Your task to perform on an android device: toggle show notifications on the lock screen Image 0: 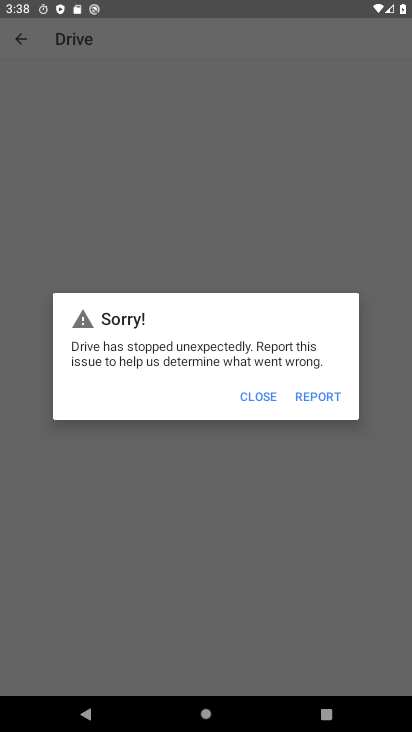
Step 0: press home button
Your task to perform on an android device: toggle show notifications on the lock screen Image 1: 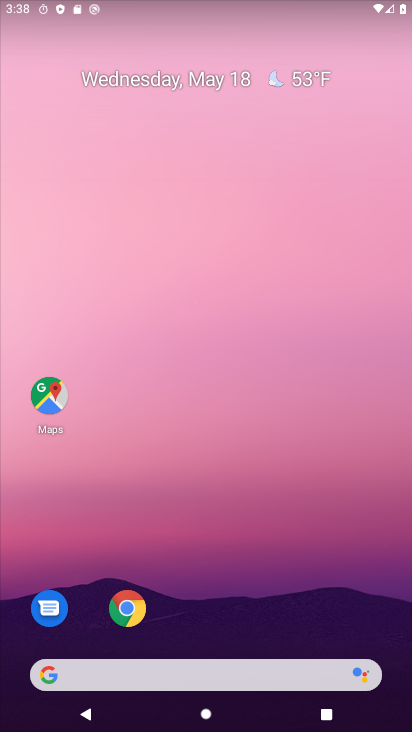
Step 1: drag from (225, 683) to (279, 78)
Your task to perform on an android device: toggle show notifications on the lock screen Image 2: 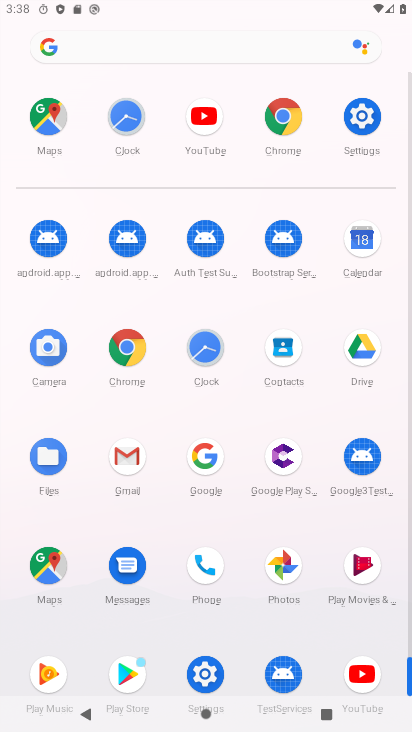
Step 2: click (356, 131)
Your task to perform on an android device: toggle show notifications on the lock screen Image 3: 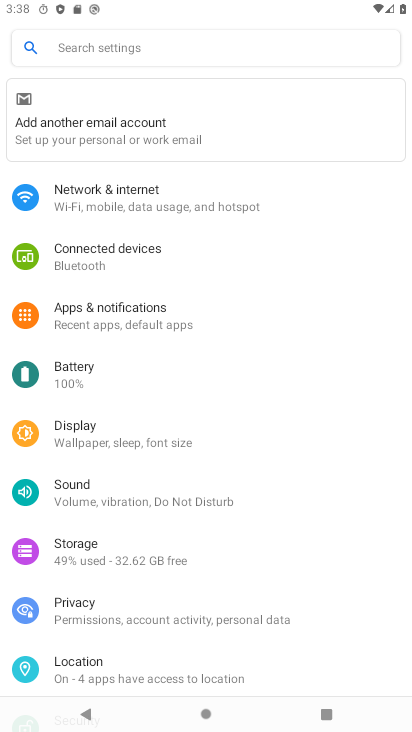
Step 3: click (177, 319)
Your task to perform on an android device: toggle show notifications on the lock screen Image 4: 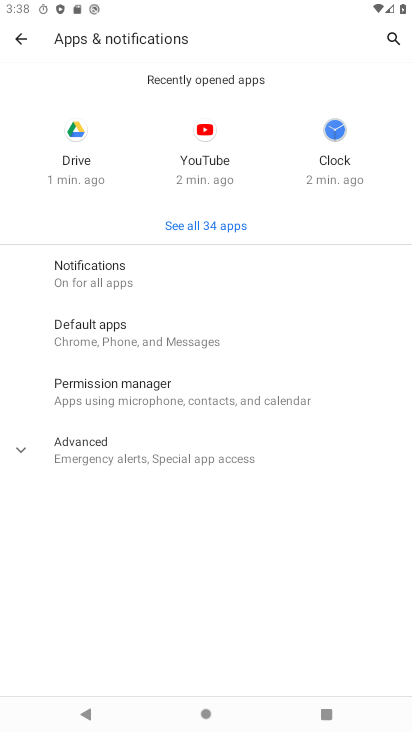
Step 4: click (62, 273)
Your task to perform on an android device: toggle show notifications on the lock screen Image 5: 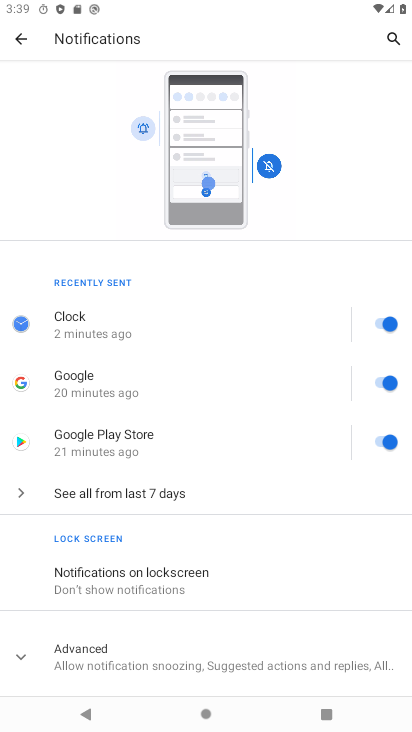
Step 5: click (209, 586)
Your task to perform on an android device: toggle show notifications on the lock screen Image 6: 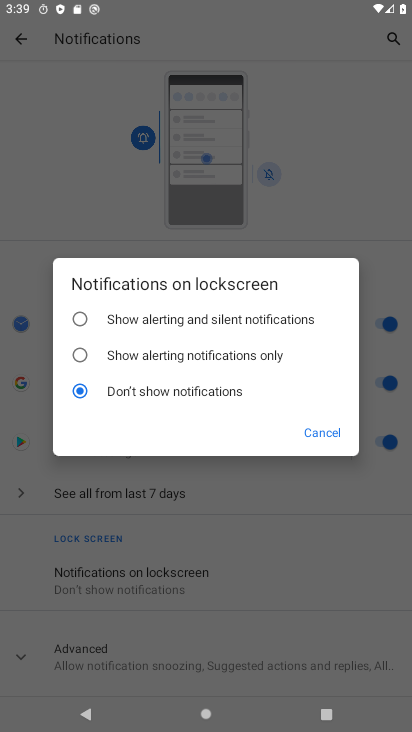
Step 6: click (76, 313)
Your task to perform on an android device: toggle show notifications on the lock screen Image 7: 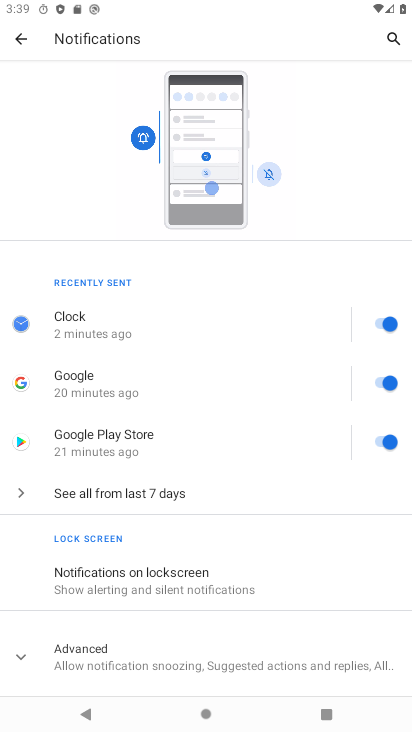
Step 7: task complete